Your task to perform on an android device: What's the weather going to be tomorrow? Image 0: 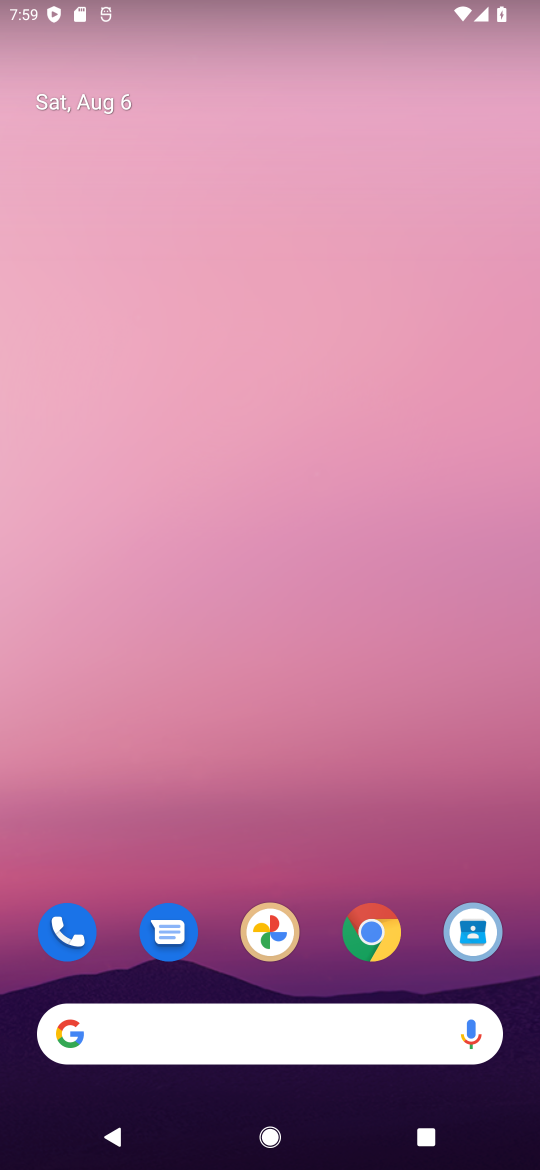
Step 0: press home button
Your task to perform on an android device: What's the weather going to be tomorrow? Image 1: 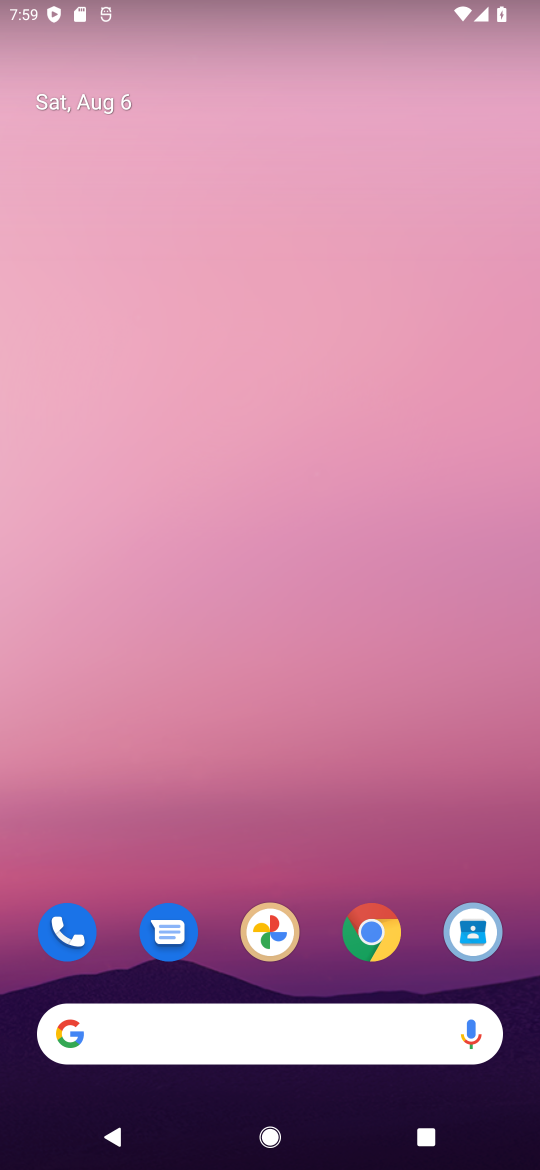
Step 1: click (184, 1037)
Your task to perform on an android device: What's the weather going to be tomorrow? Image 2: 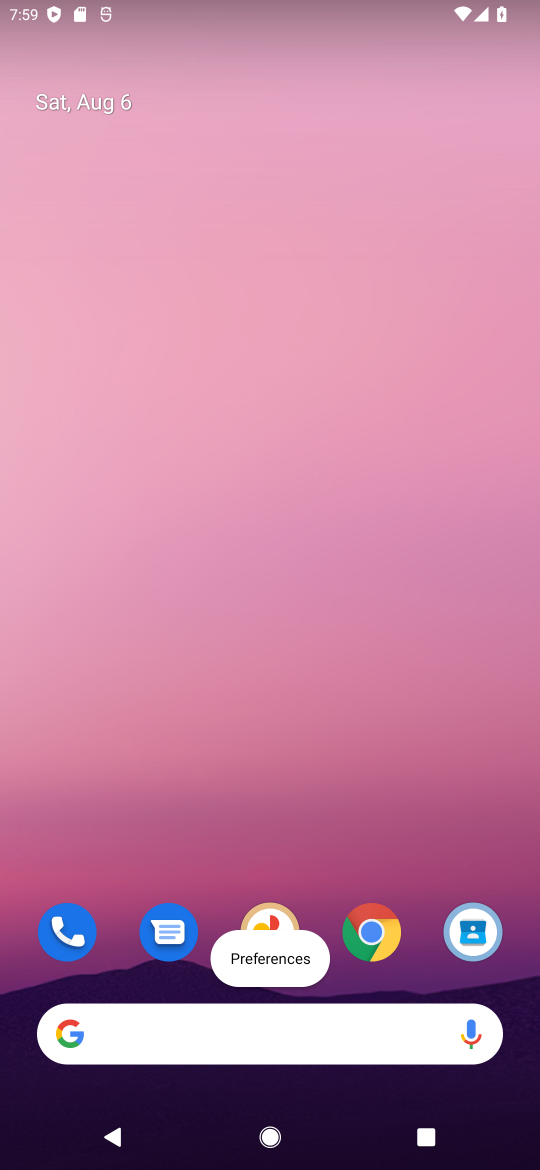
Step 2: click (200, 1030)
Your task to perform on an android device: What's the weather going to be tomorrow? Image 3: 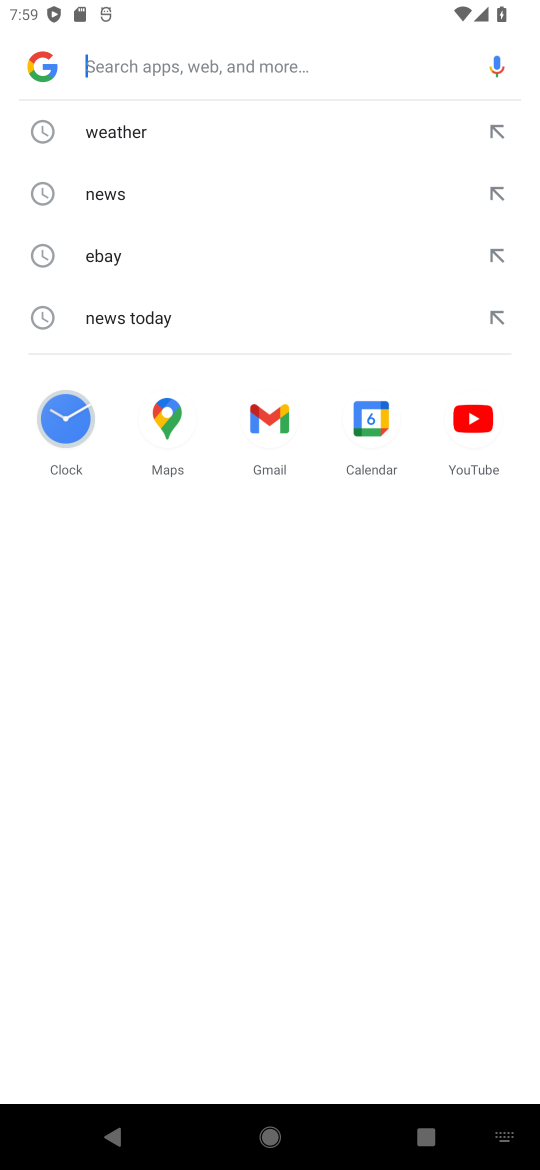
Step 3: click (146, 138)
Your task to perform on an android device: What's the weather going to be tomorrow? Image 4: 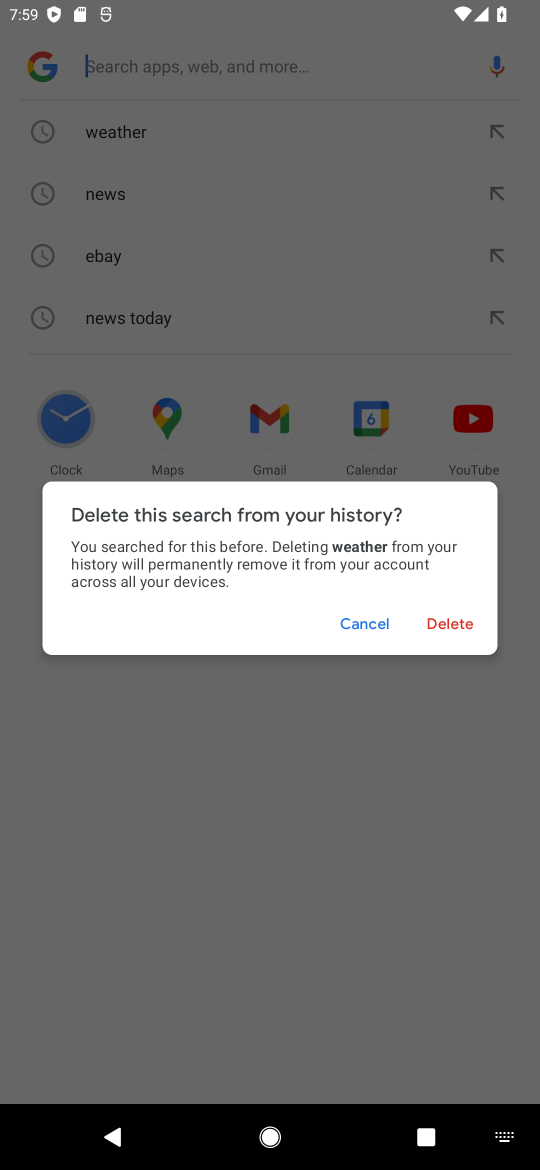
Step 4: click (379, 625)
Your task to perform on an android device: What's the weather going to be tomorrow? Image 5: 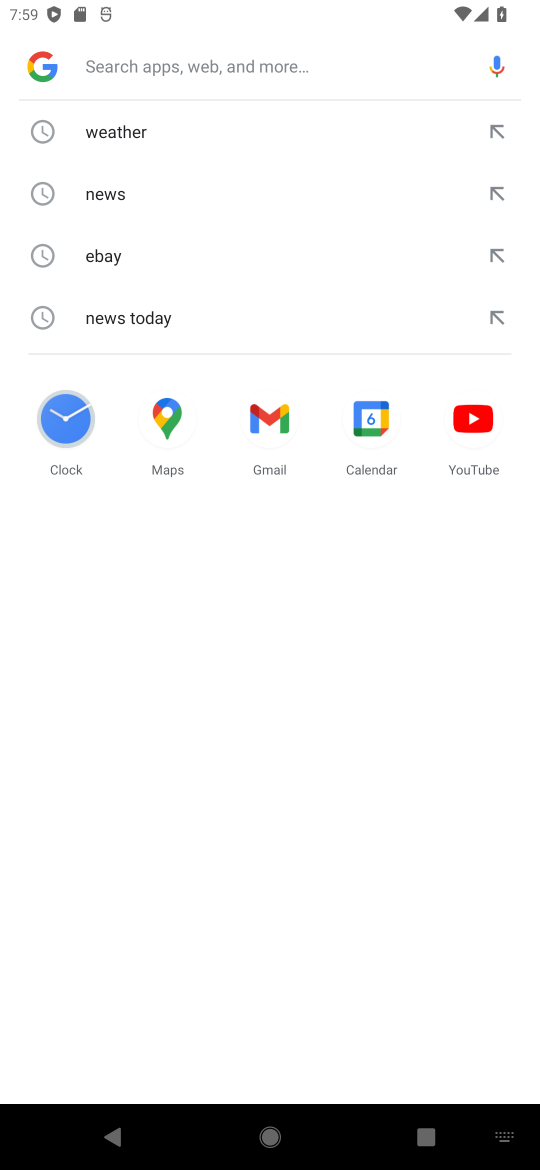
Step 5: click (126, 129)
Your task to perform on an android device: What's the weather going to be tomorrow? Image 6: 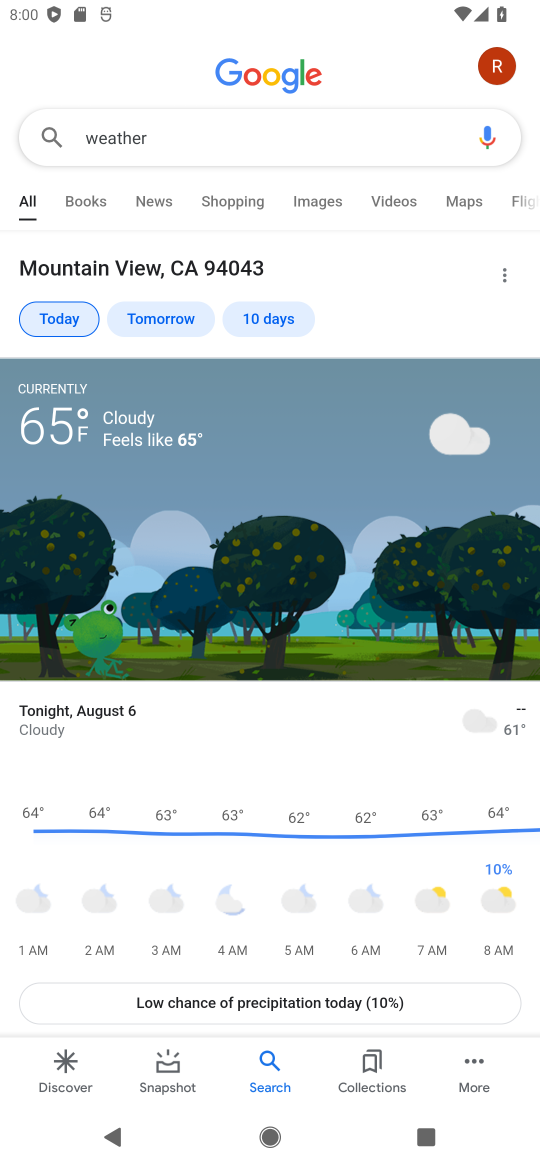
Step 6: click (152, 323)
Your task to perform on an android device: What's the weather going to be tomorrow? Image 7: 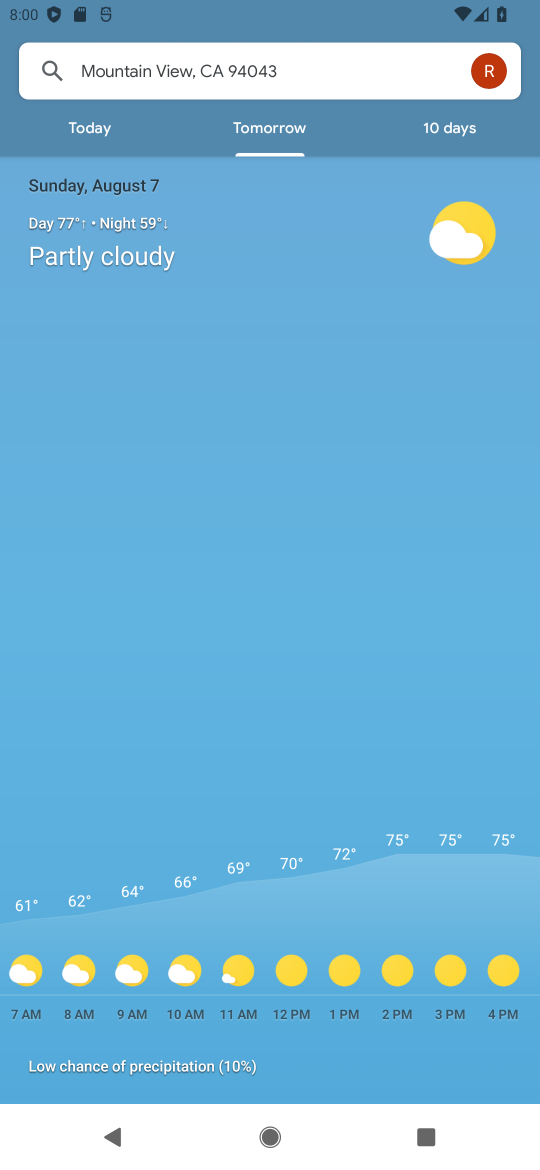
Step 7: task complete